Your task to perform on an android device: Search for pizza restaurants on Maps Image 0: 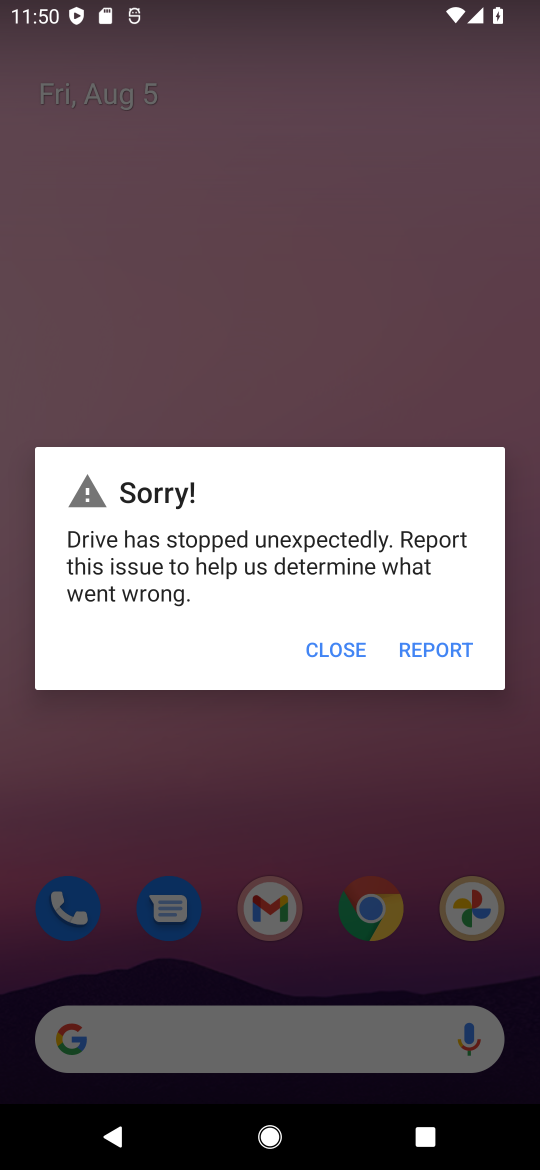
Step 0: press home button
Your task to perform on an android device: Search for pizza restaurants on Maps Image 1: 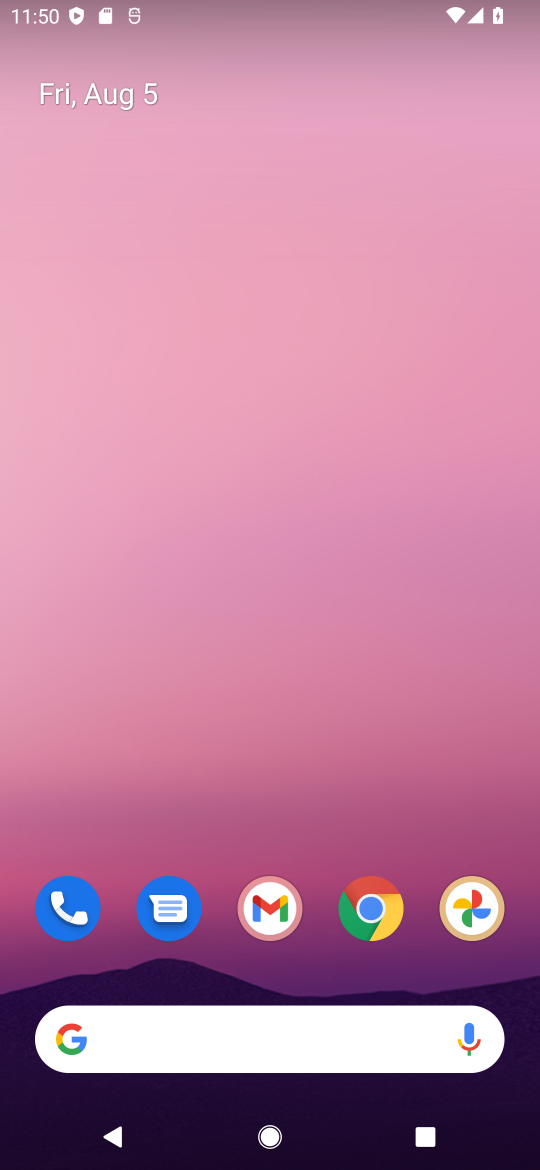
Step 1: drag from (273, 617) to (251, 130)
Your task to perform on an android device: Search for pizza restaurants on Maps Image 2: 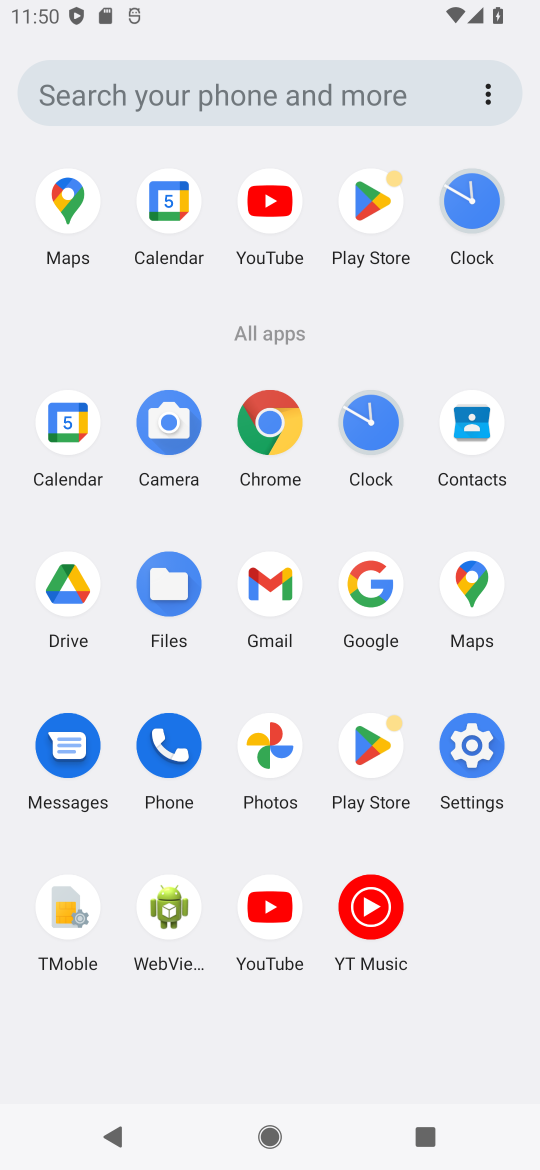
Step 2: click (476, 569)
Your task to perform on an android device: Search for pizza restaurants on Maps Image 3: 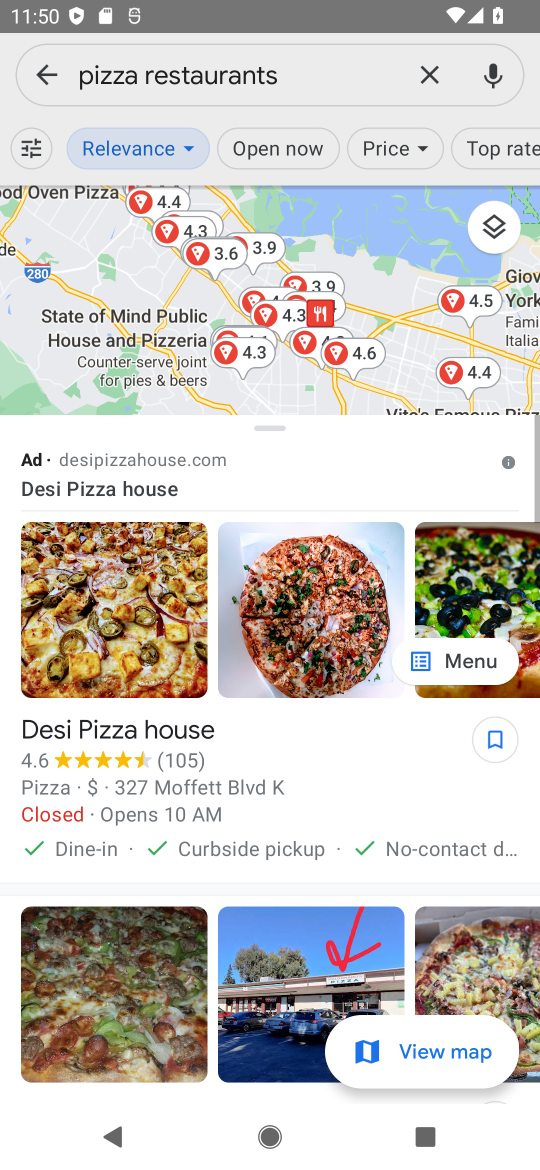
Step 3: click (201, 57)
Your task to perform on an android device: Search for pizza restaurants on Maps Image 4: 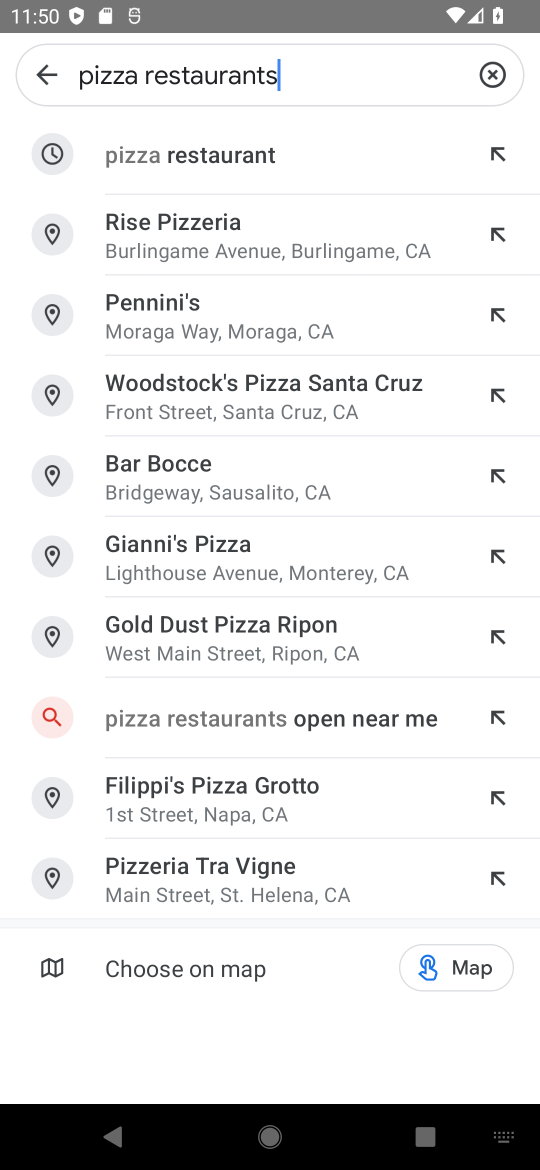
Step 4: press enter
Your task to perform on an android device: Search for pizza restaurants on Maps Image 5: 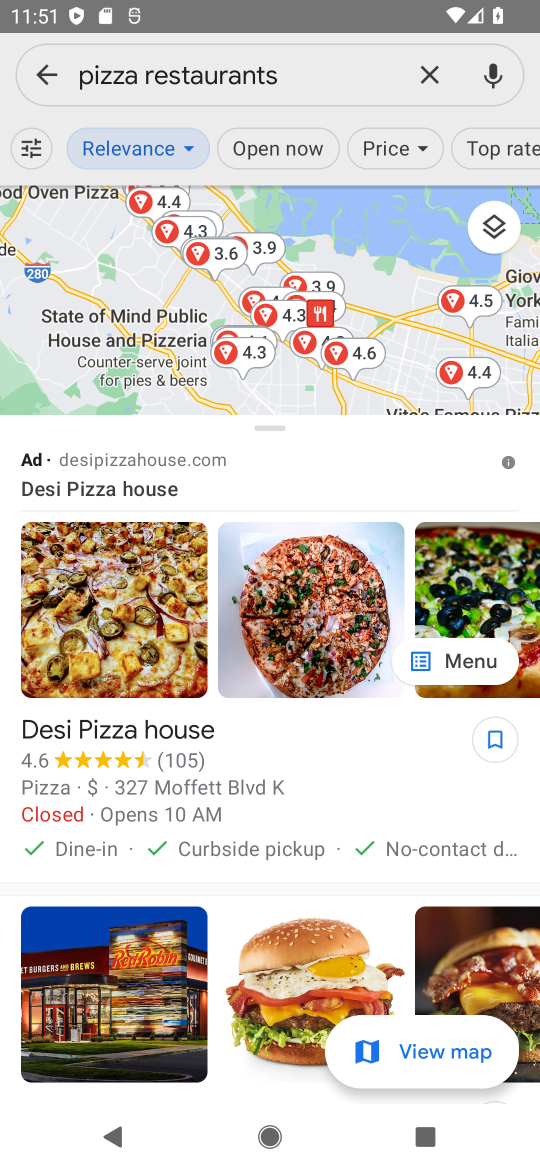
Step 5: task complete